Your task to perform on an android device: Check the settings for the Google Play Movies app Image 0: 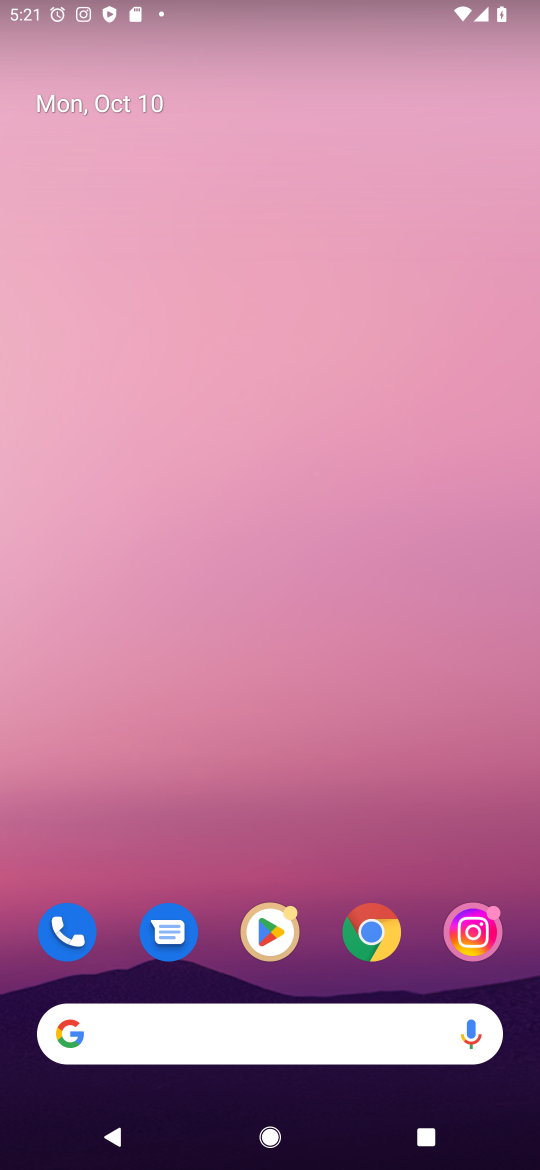
Step 0: drag from (462, 728) to (452, 98)
Your task to perform on an android device: Check the settings for the Google Play Movies app Image 1: 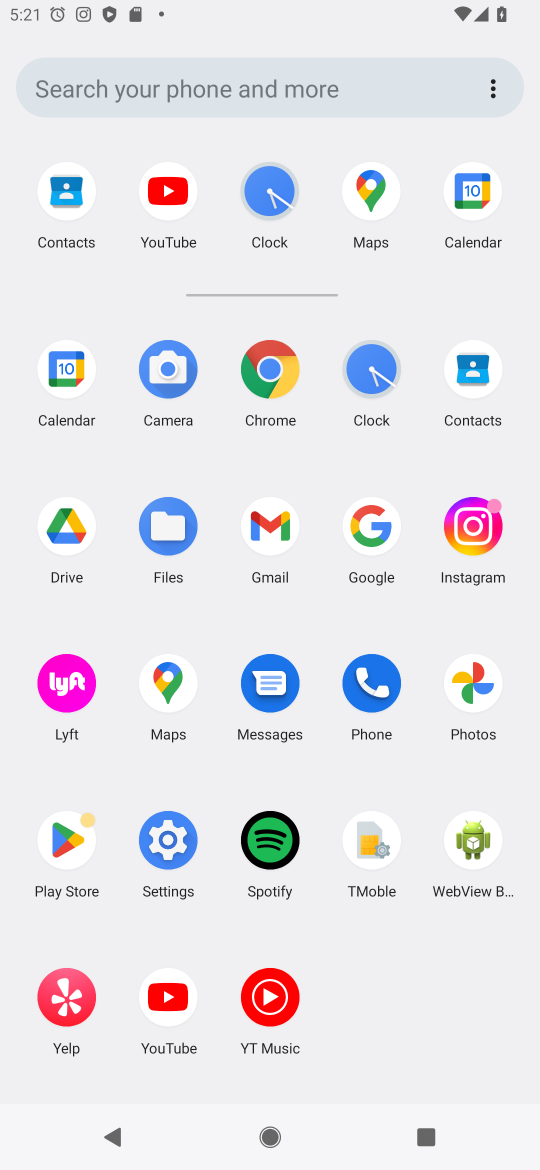
Step 1: click (63, 861)
Your task to perform on an android device: Check the settings for the Google Play Movies app Image 2: 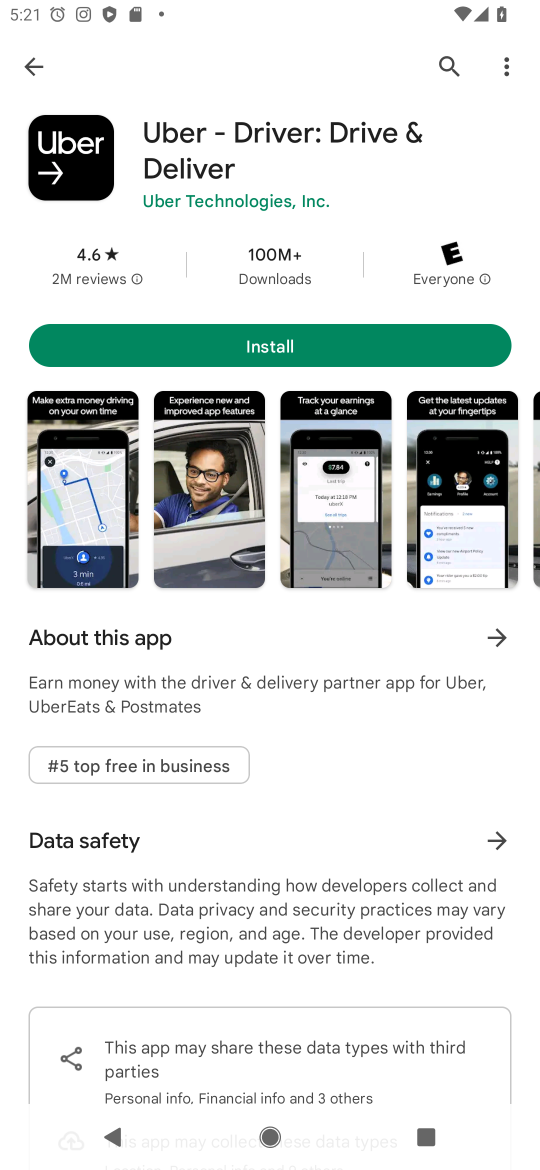
Step 2: press back button
Your task to perform on an android device: Check the settings for the Google Play Movies app Image 3: 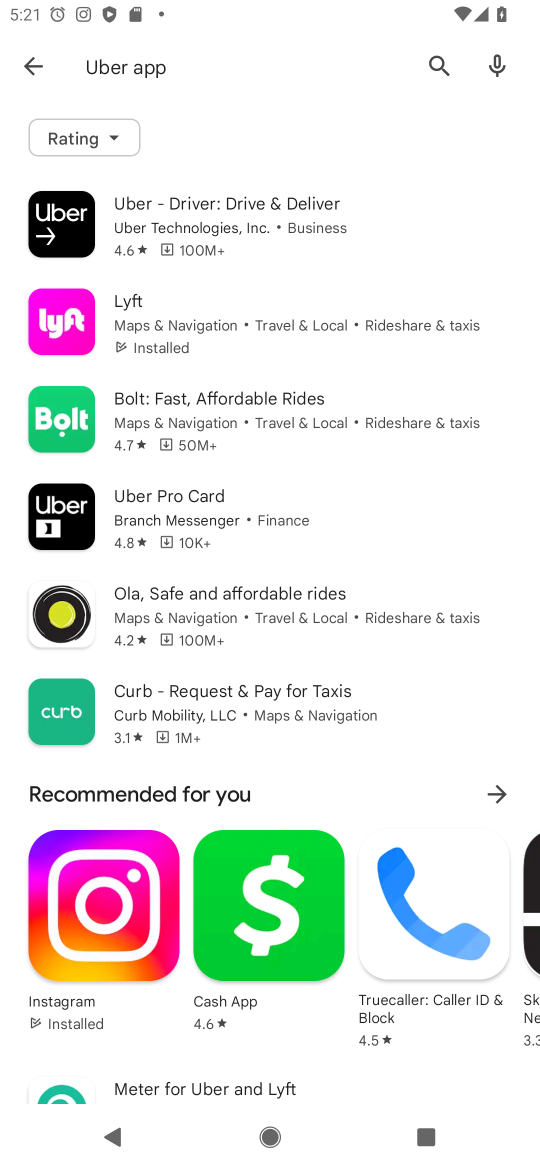
Step 3: press back button
Your task to perform on an android device: Check the settings for the Google Play Movies app Image 4: 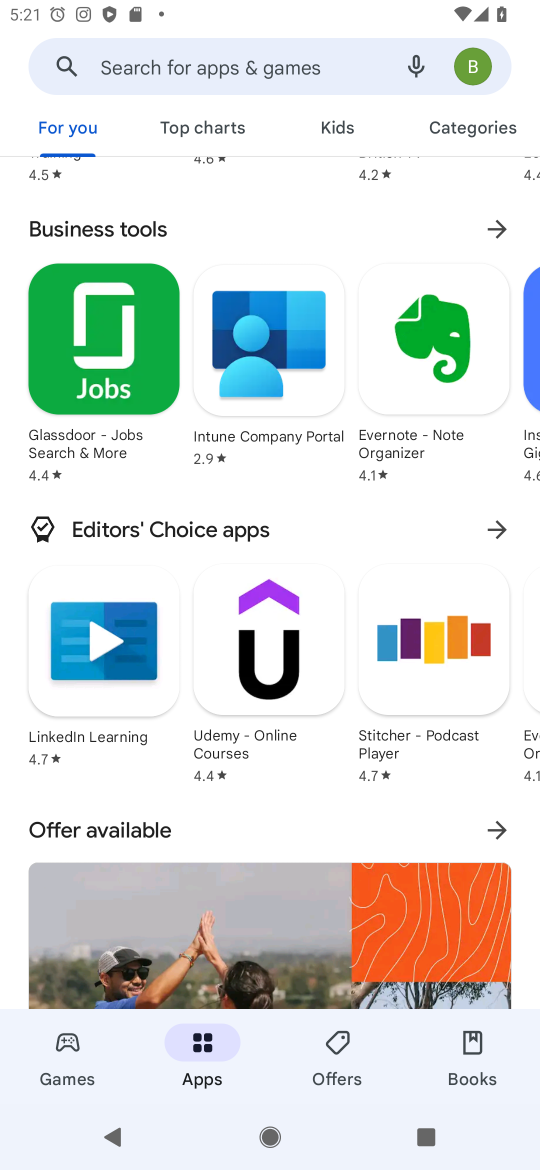
Step 4: click (275, 70)
Your task to perform on an android device: Check the settings for the Google Play Movies app Image 5: 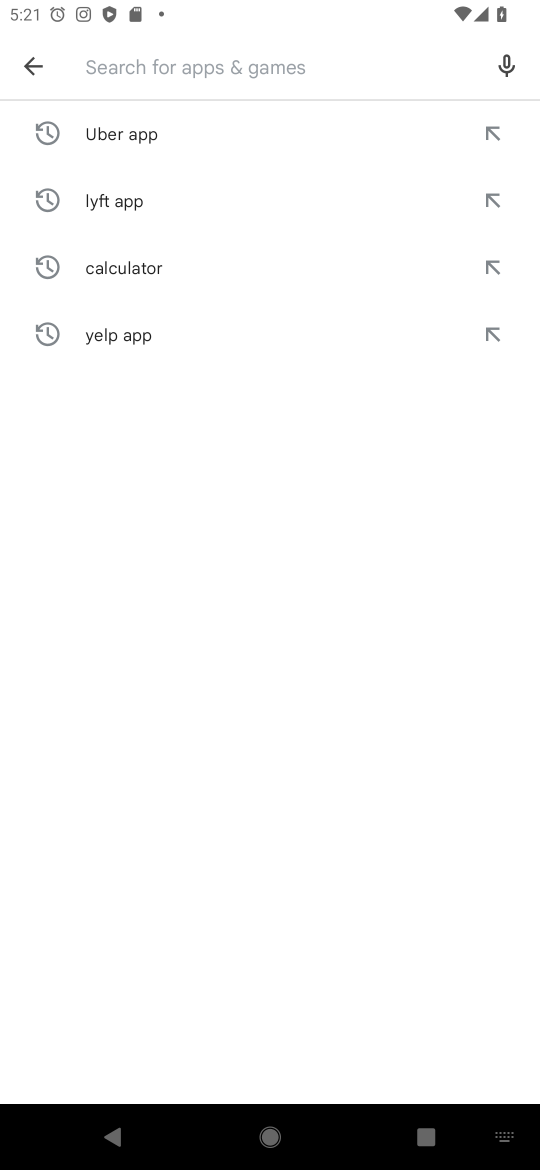
Step 5: press enter
Your task to perform on an android device: Check the settings for the Google Play Movies app Image 6: 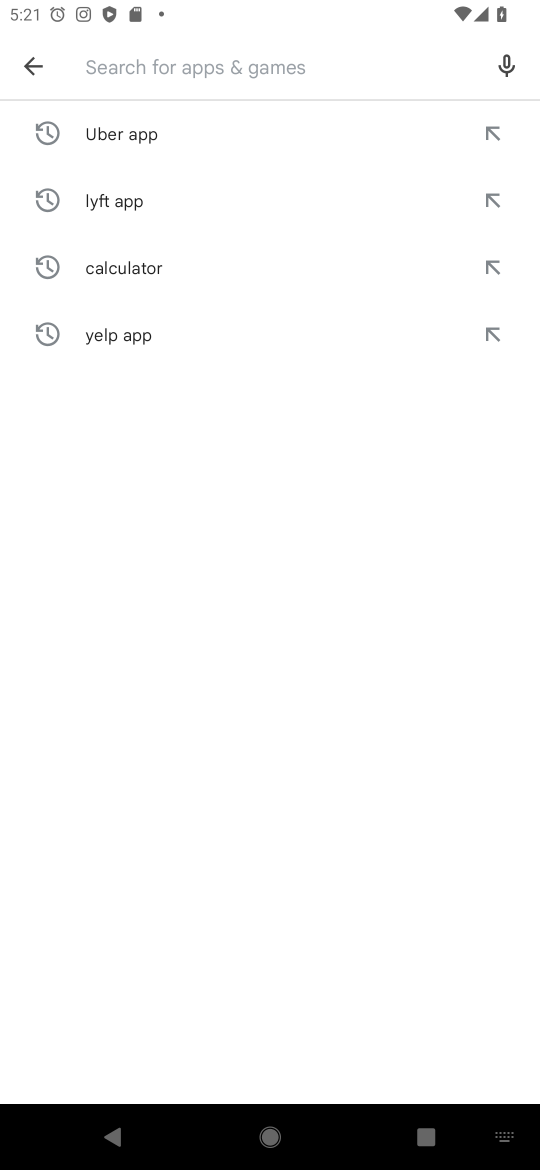
Step 6: type " Google Play Movies"
Your task to perform on an android device: Check the settings for the Google Play Movies app Image 7: 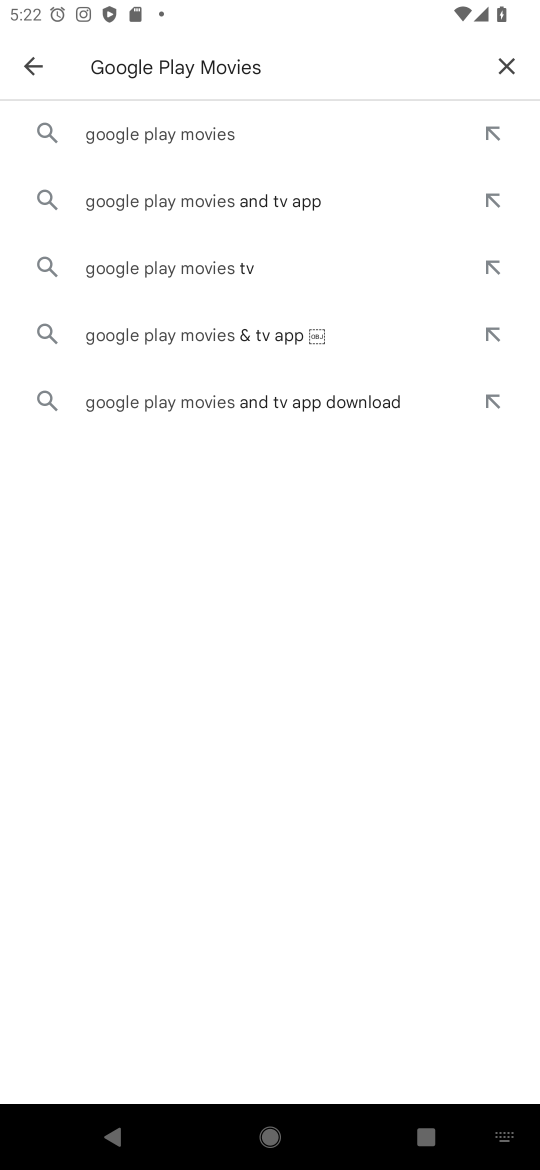
Step 7: click (203, 128)
Your task to perform on an android device: Check the settings for the Google Play Movies app Image 8: 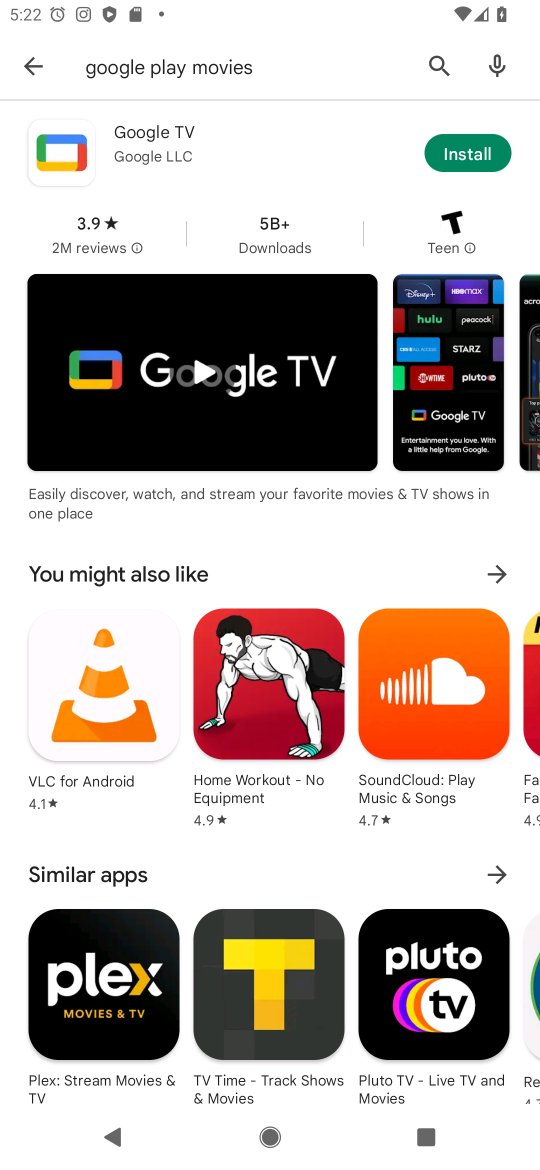
Step 8: task complete